Your task to perform on an android device: change the clock display to digital Image 0: 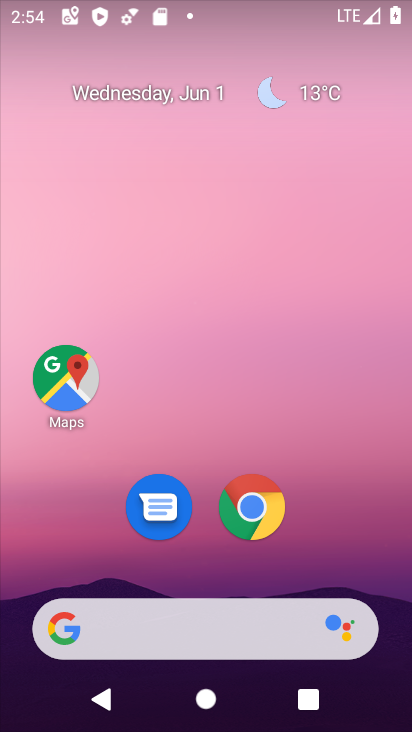
Step 0: click (336, 556)
Your task to perform on an android device: change the clock display to digital Image 1: 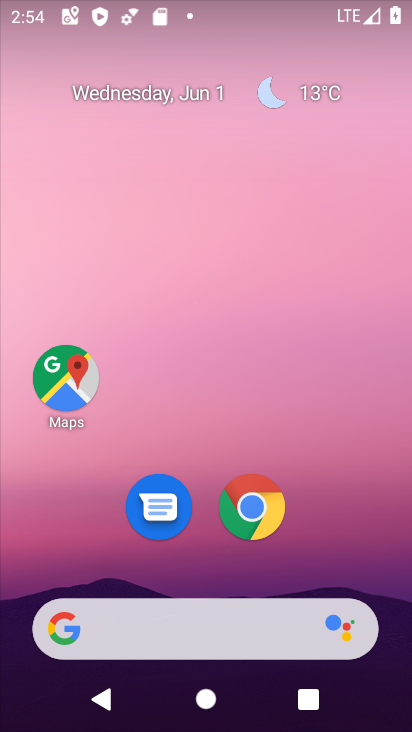
Step 1: drag from (336, 556) to (52, 137)
Your task to perform on an android device: change the clock display to digital Image 2: 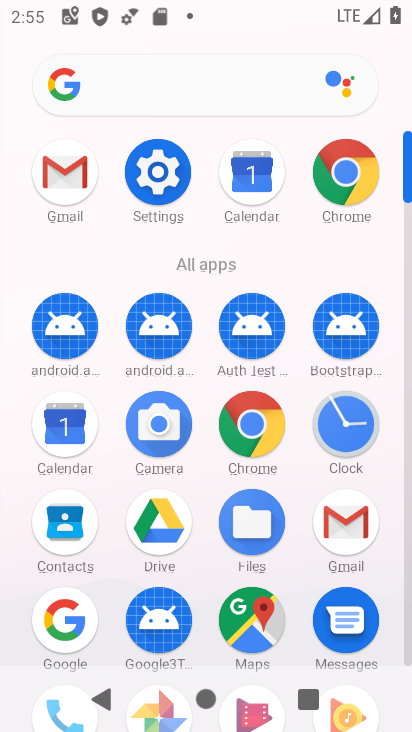
Step 2: click (364, 448)
Your task to perform on an android device: change the clock display to digital Image 3: 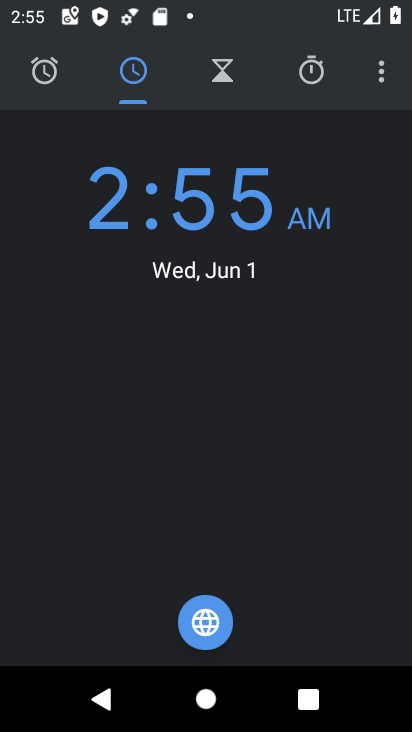
Step 3: click (384, 79)
Your task to perform on an android device: change the clock display to digital Image 4: 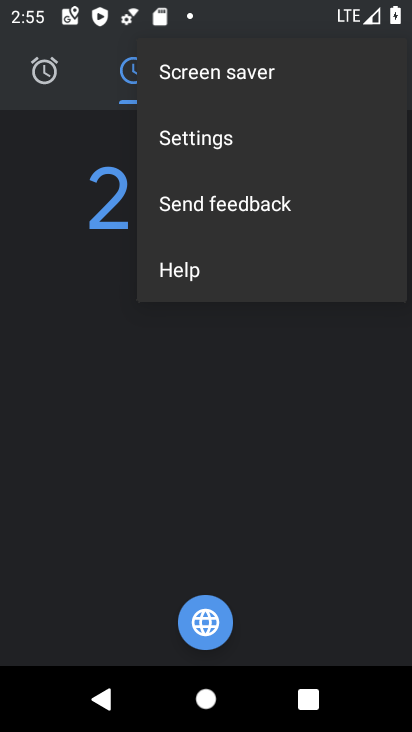
Step 4: click (210, 135)
Your task to perform on an android device: change the clock display to digital Image 5: 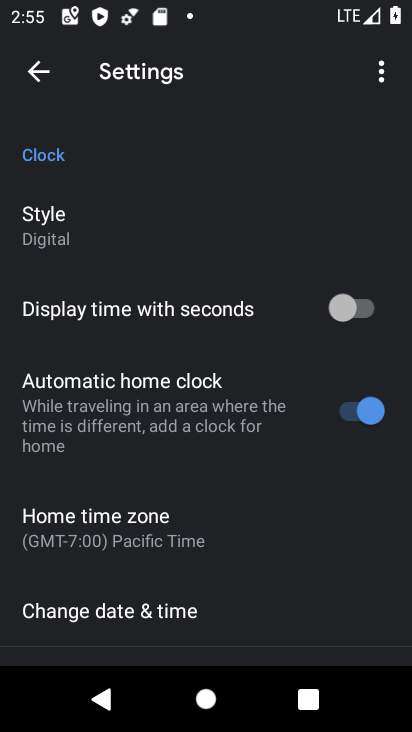
Step 5: click (49, 239)
Your task to perform on an android device: change the clock display to digital Image 6: 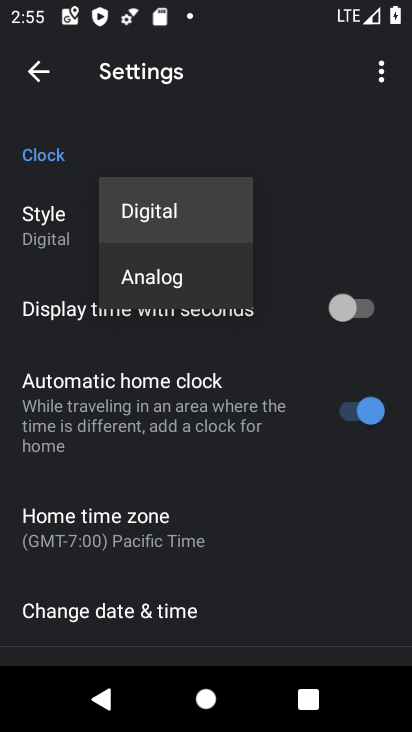
Step 6: task complete